Your task to perform on an android device: Search for a nice rug on Crate & Barrel Image 0: 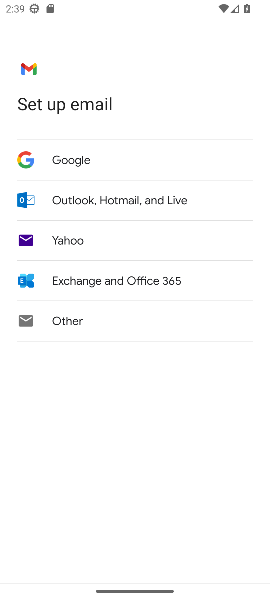
Step 0: press home button
Your task to perform on an android device: Search for a nice rug on Crate & Barrel Image 1: 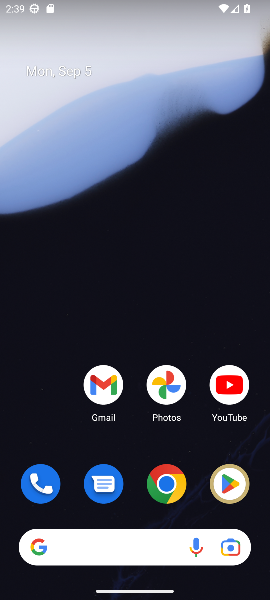
Step 1: click (168, 492)
Your task to perform on an android device: Search for a nice rug on Crate & Barrel Image 2: 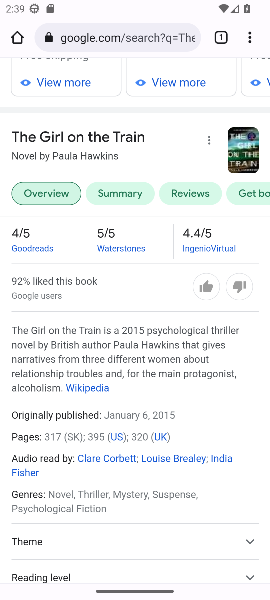
Step 2: click (132, 39)
Your task to perform on an android device: Search for a nice rug on Crate & Barrel Image 3: 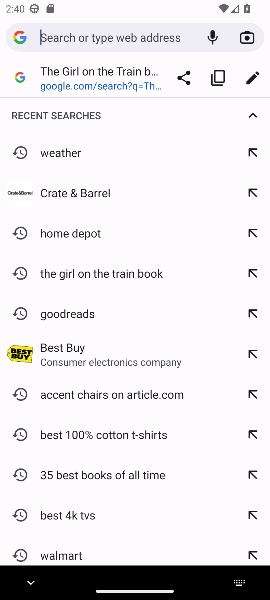
Step 3: type "Crate & Barrel"
Your task to perform on an android device: Search for a nice rug on Crate & Barrel Image 4: 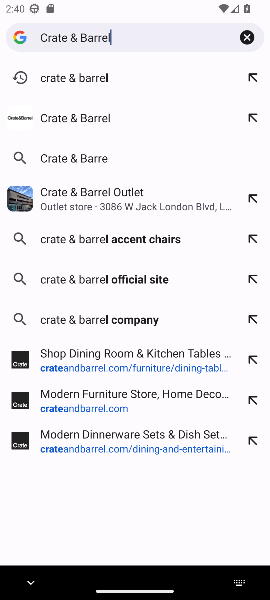
Step 4: press enter
Your task to perform on an android device: Search for a nice rug on Crate & Barrel Image 5: 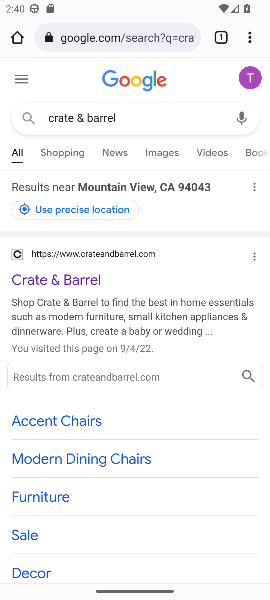
Step 5: click (66, 284)
Your task to perform on an android device: Search for a nice rug on Crate & Barrel Image 6: 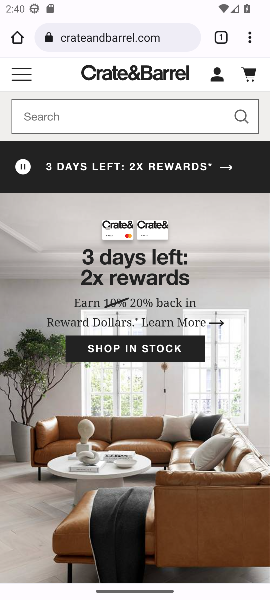
Step 6: click (146, 118)
Your task to perform on an android device: Search for a nice rug on Crate & Barrel Image 7: 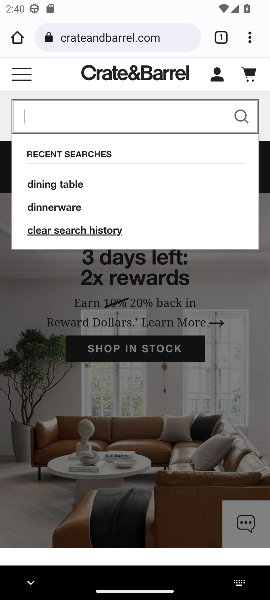
Step 7: type "nice rug "
Your task to perform on an android device: Search for a nice rug on Crate & Barrel Image 8: 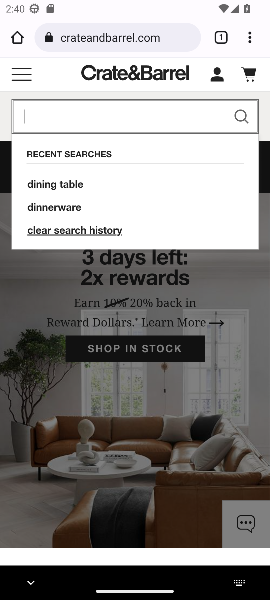
Step 8: press enter
Your task to perform on an android device: Search for a nice rug on Crate & Barrel Image 9: 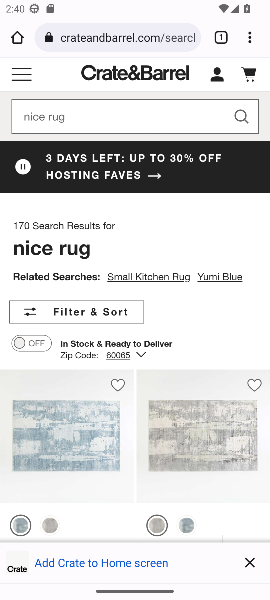
Step 9: drag from (116, 504) to (243, 307)
Your task to perform on an android device: Search for a nice rug on Crate & Barrel Image 10: 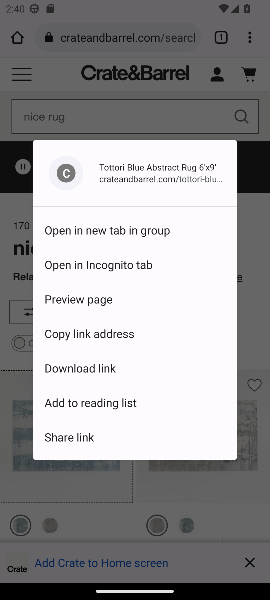
Step 10: click (254, 308)
Your task to perform on an android device: Search for a nice rug on Crate & Barrel Image 11: 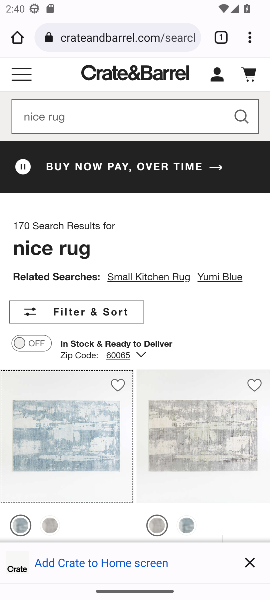
Step 11: click (250, 560)
Your task to perform on an android device: Search for a nice rug on Crate & Barrel Image 12: 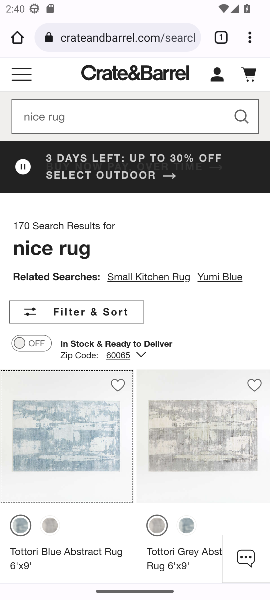
Step 12: task complete